Your task to perform on an android device: Open calendar and show me the third week of next month Image 0: 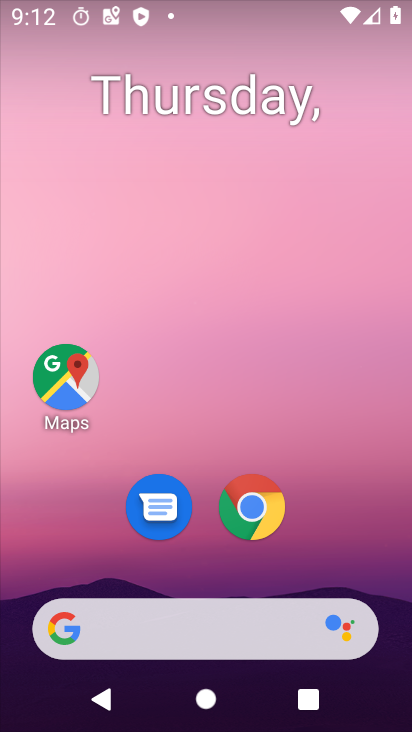
Step 0: drag from (194, 565) to (380, 1)
Your task to perform on an android device: Open calendar and show me the third week of next month Image 1: 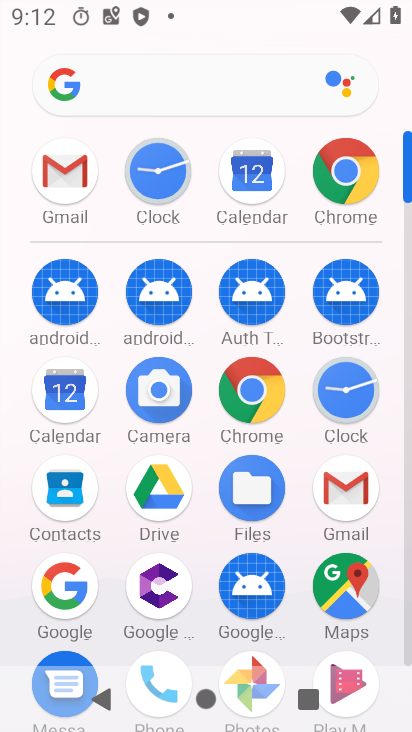
Step 1: click (50, 403)
Your task to perform on an android device: Open calendar and show me the third week of next month Image 2: 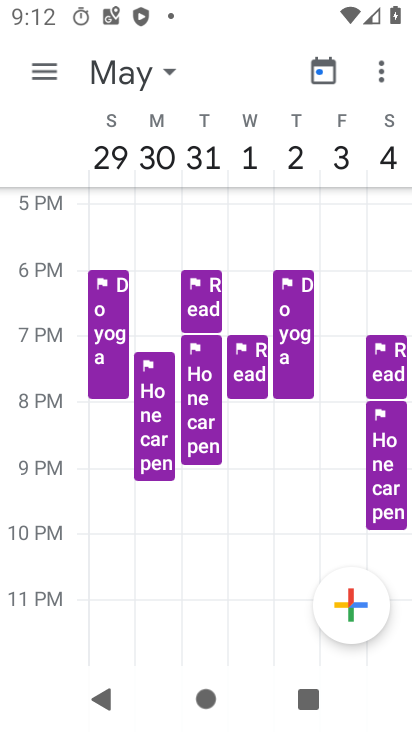
Step 2: task complete